Your task to perform on an android device: Go to calendar. Show me events next week Image 0: 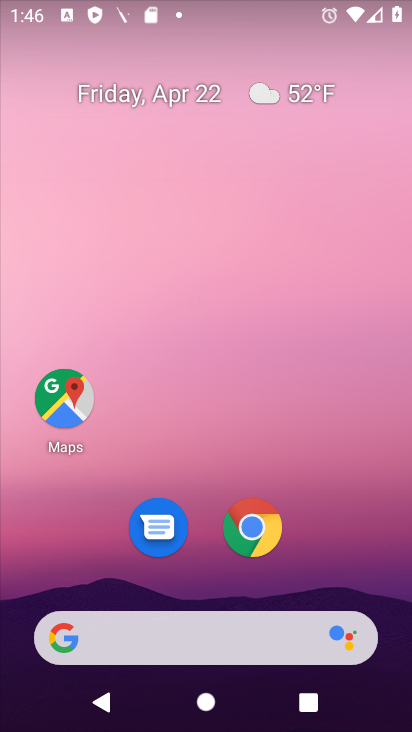
Step 0: drag from (350, 501) to (351, 174)
Your task to perform on an android device: Go to calendar. Show me events next week Image 1: 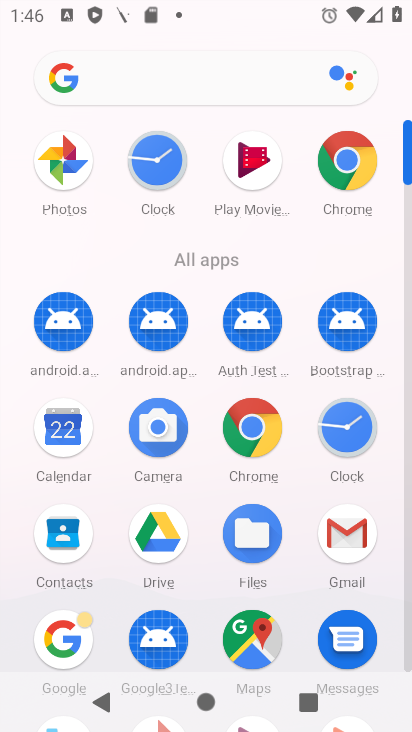
Step 1: click (50, 417)
Your task to perform on an android device: Go to calendar. Show me events next week Image 2: 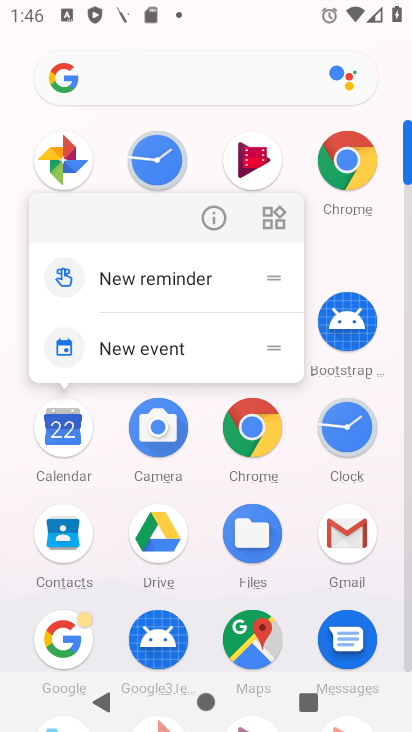
Step 2: click (60, 429)
Your task to perform on an android device: Go to calendar. Show me events next week Image 3: 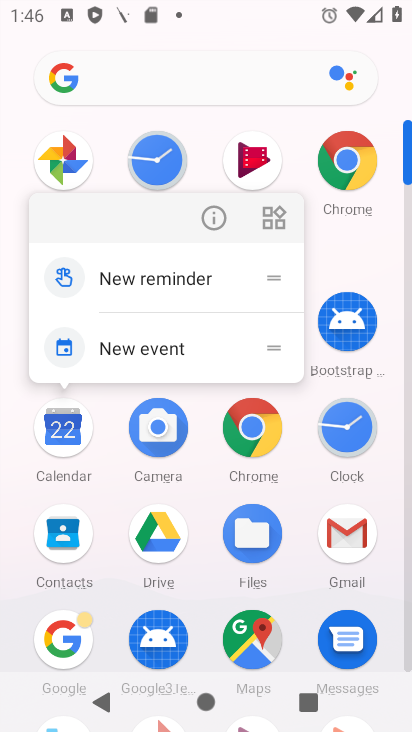
Step 3: click (58, 429)
Your task to perform on an android device: Go to calendar. Show me events next week Image 4: 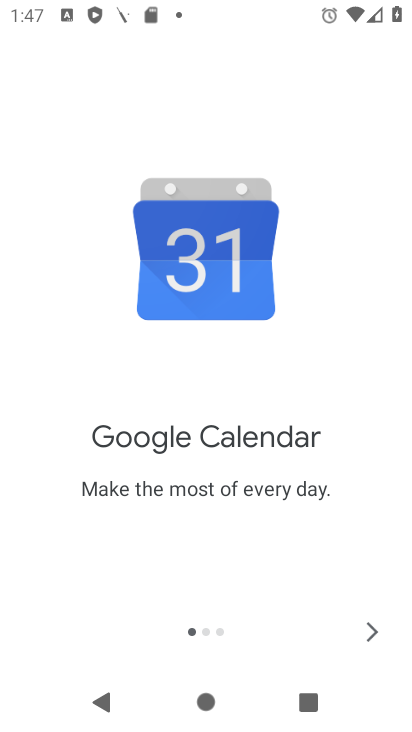
Step 4: click (378, 637)
Your task to perform on an android device: Go to calendar. Show me events next week Image 5: 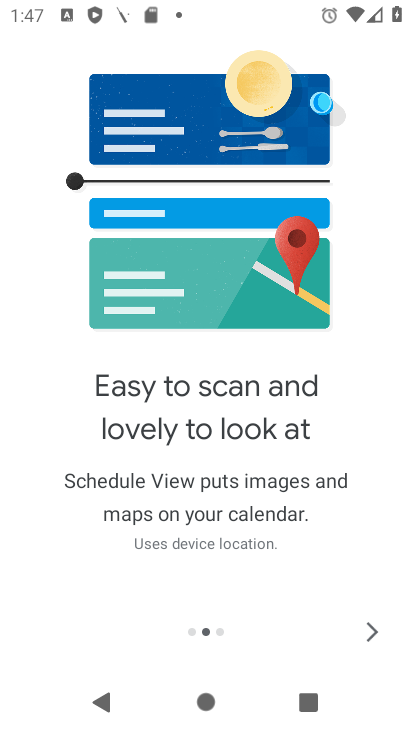
Step 5: click (366, 633)
Your task to perform on an android device: Go to calendar. Show me events next week Image 6: 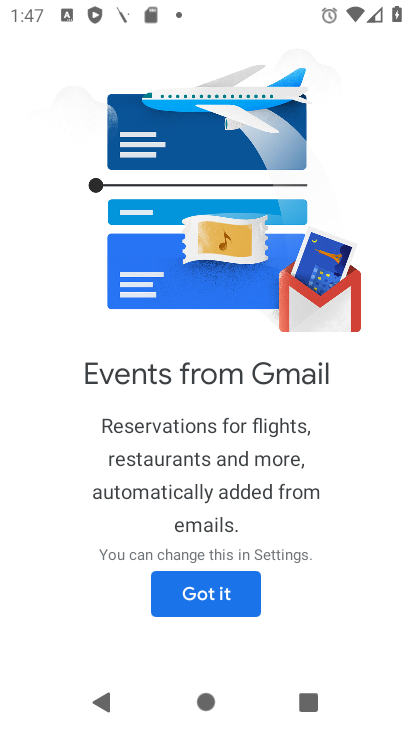
Step 6: click (209, 590)
Your task to perform on an android device: Go to calendar. Show me events next week Image 7: 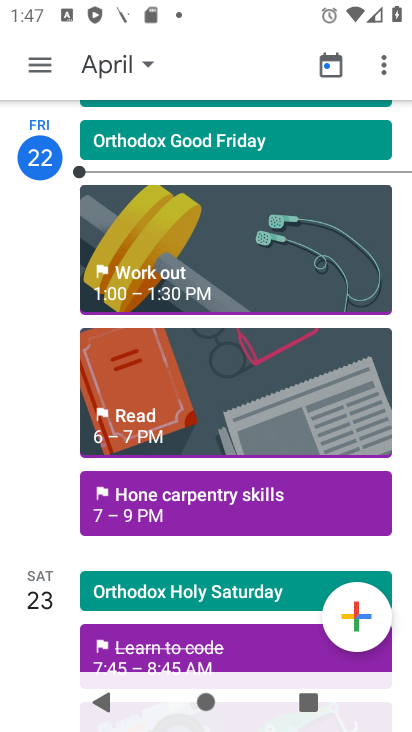
Step 7: click (123, 61)
Your task to perform on an android device: Go to calendar. Show me events next week Image 8: 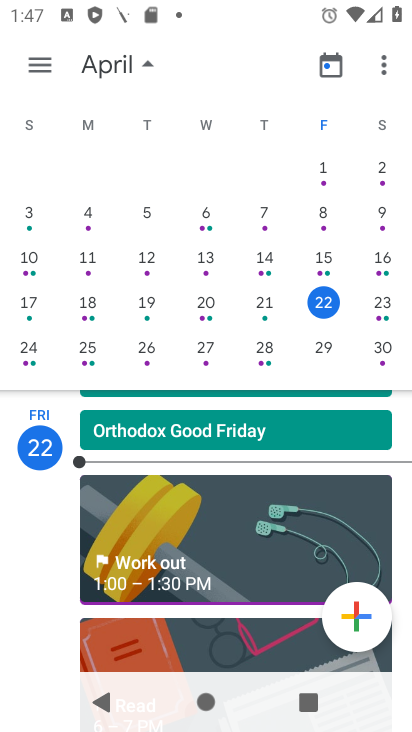
Step 8: click (261, 352)
Your task to perform on an android device: Go to calendar. Show me events next week Image 9: 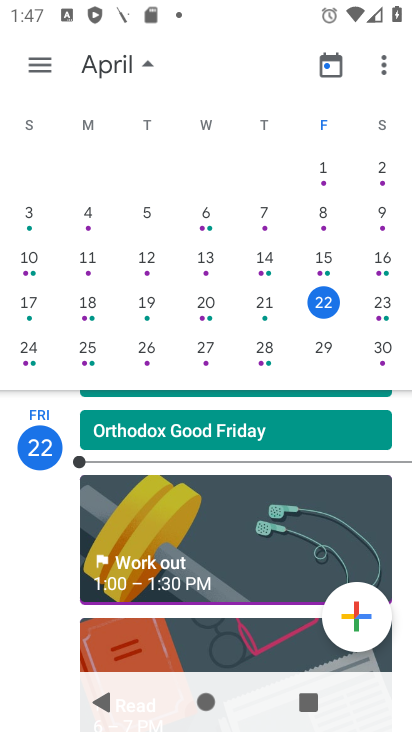
Step 9: click (261, 350)
Your task to perform on an android device: Go to calendar. Show me events next week Image 10: 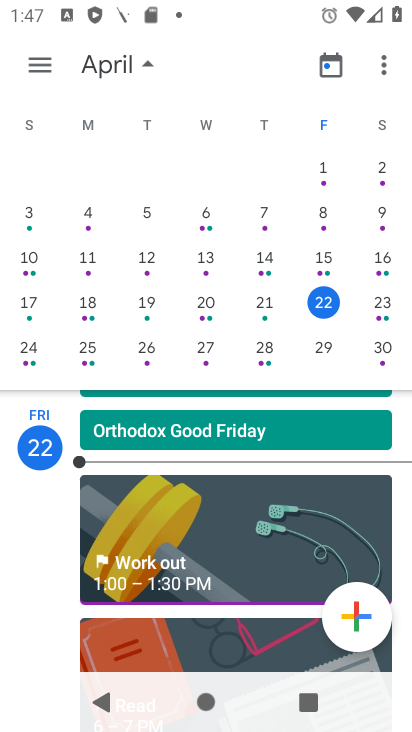
Step 10: click (261, 348)
Your task to perform on an android device: Go to calendar. Show me events next week Image 11: 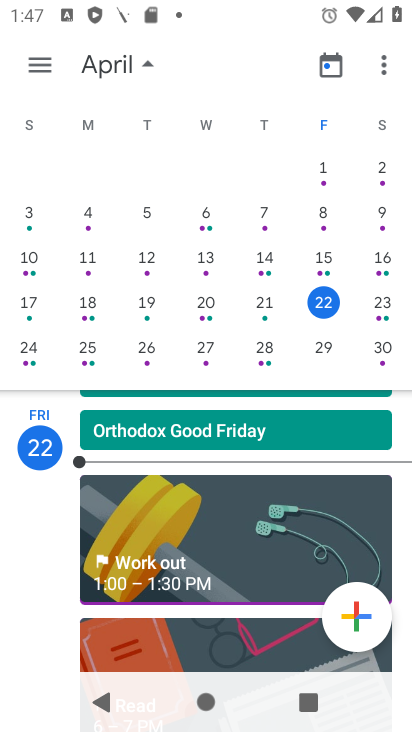
Step 11: click (261, 347)
Your task to perform on an android device: Go to calendar. Show me events next week Image 12: 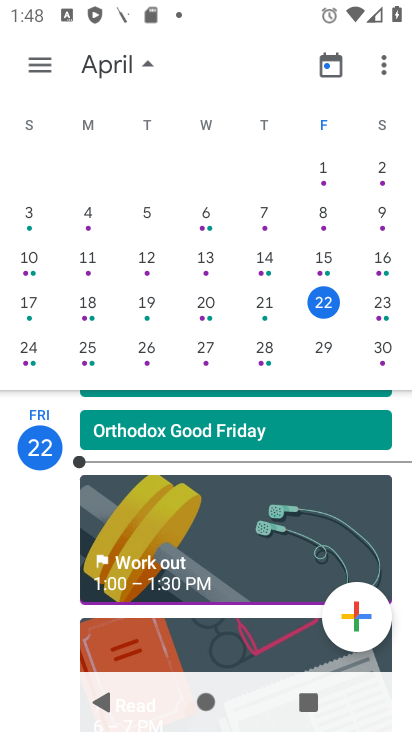
Step 12: click (261, 347)
Your task to perform on an android device: Go to calendar. Show me events next week Image 13: 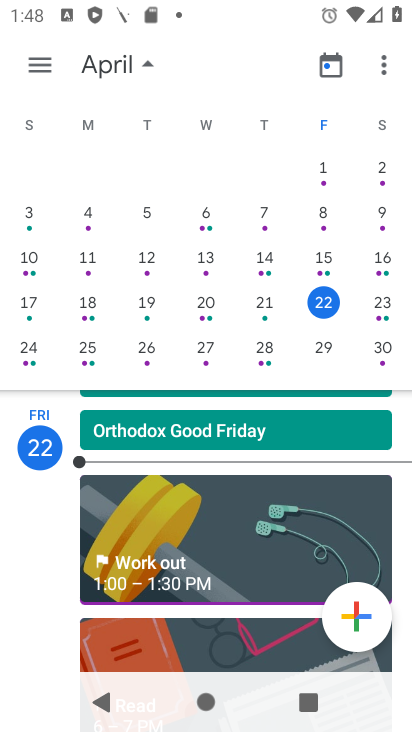
Step 13: click (253, 354)
Your task to perform on an android device: Go to calendar. Show me events next week Image 14: 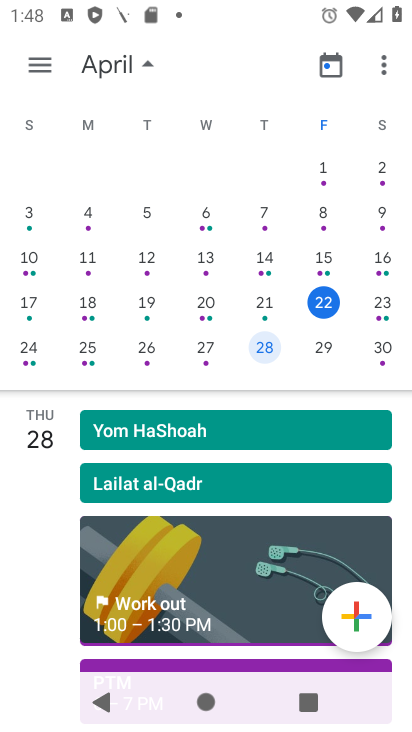
Step 14: click (253, 352)
Your task to perform on an android device: Go to calendar. Show me events next week Image 15: 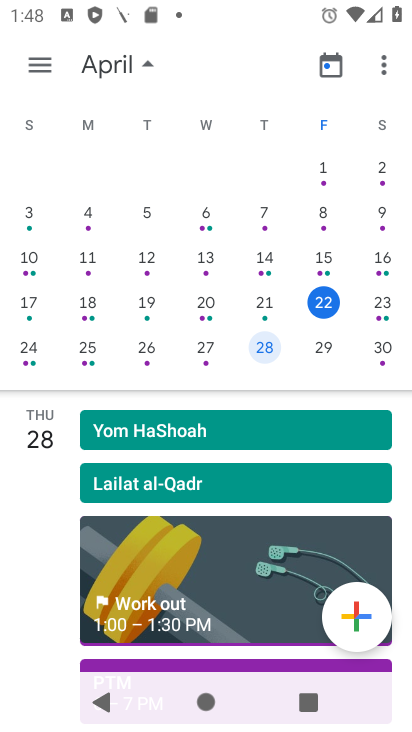
Step 15: click (253, 352)
Your task to perform on an android device: Go to calendar. Show me events next week Image 16: 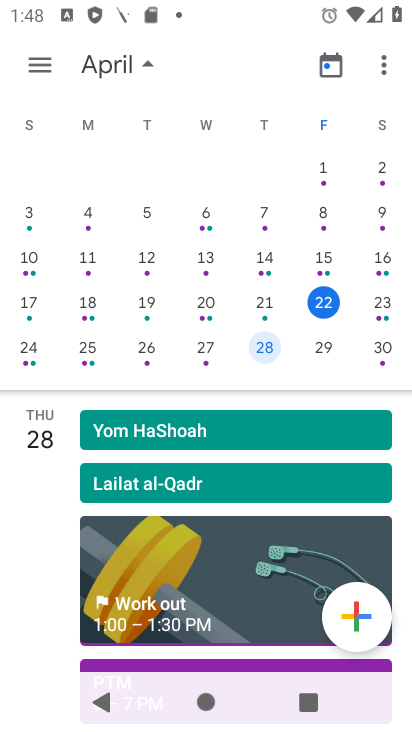
Step 16: click (265, 347)
Your task to perform on an android device: Go to calendar. Show me events next week Image 17: 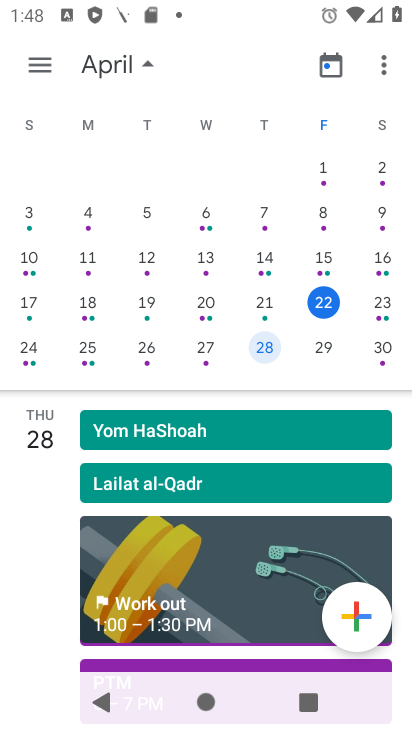
Step 17: click (265, 347)
Your task to perform on an android device: Go to calendar. Show me events next week Image 18: 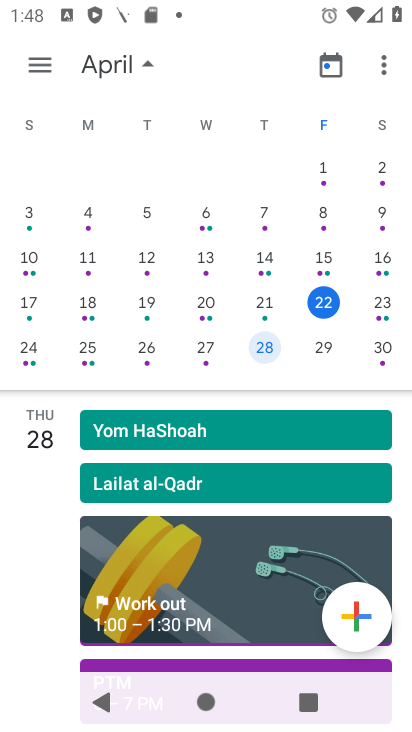
Step 18: click (265, 347)
Your task to perform on an android device: Go to calendar. Show me events next week Image 19: 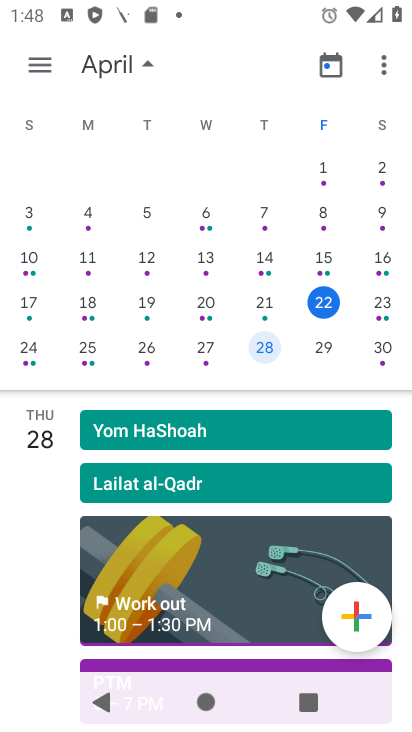
Step 19: click (265, 347)
Your task to perform on an android device: Go to calendar. Show me events next week Image 20: 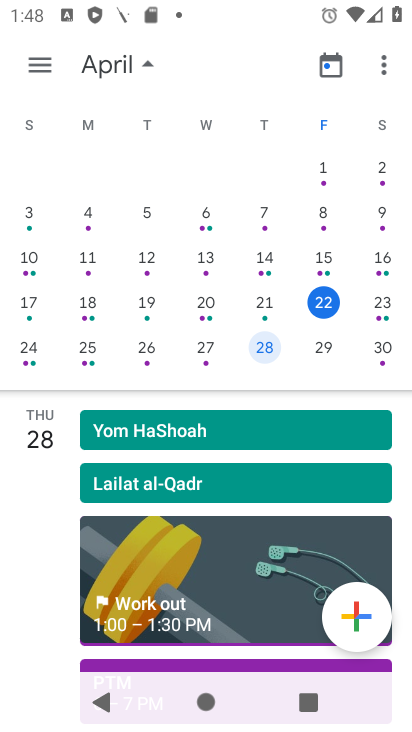
Step 20: click (265, 347)
Your task to perform on an android device: Go to calendar. Show me events next week Image 21: 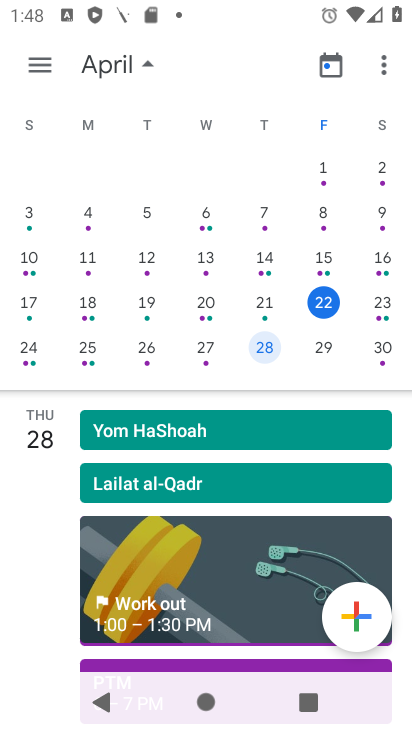
Step 21: click (265, 347)
Your task to perform on an android device: Go to calendar. Show me events next week Image 22: 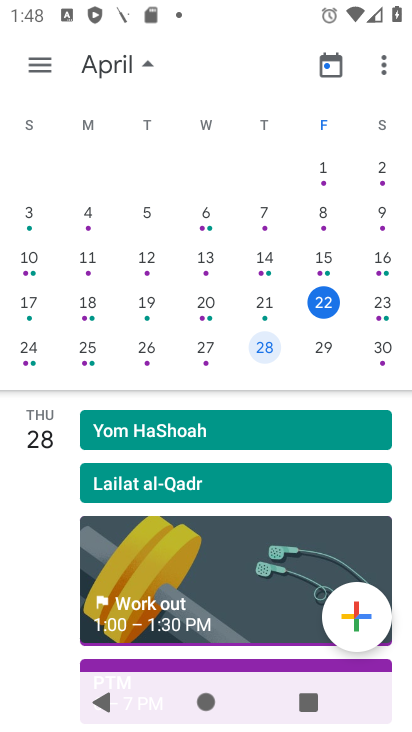
Step 22: click (265, 347)
Your task to perform on an android device: Go to calendar. Show me events next week Image 23: 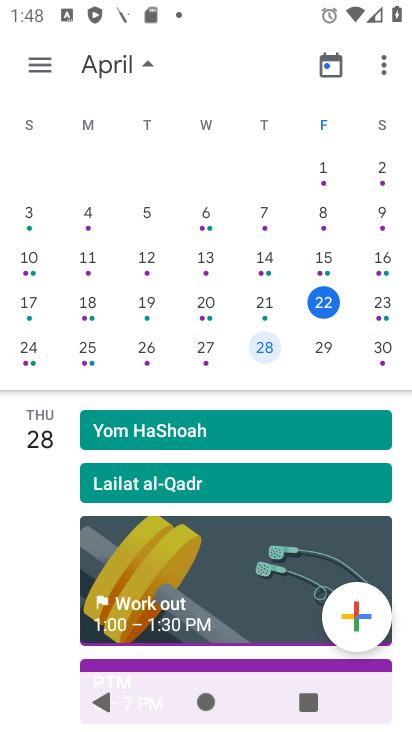
Step 23: click (269, 334)
Your task to perform on an android device: Go to calendar. Show me events next week Image 24: 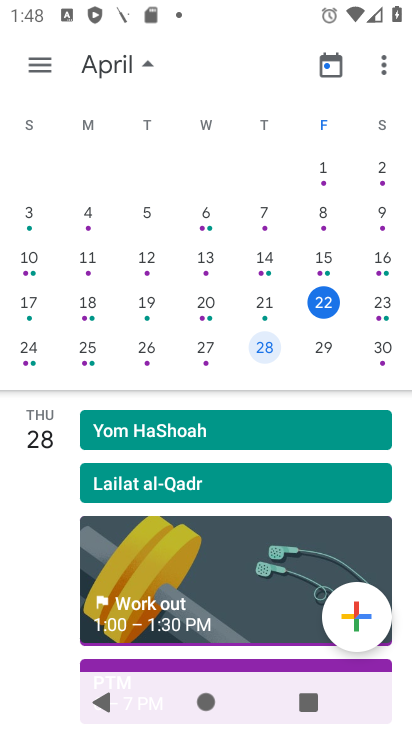
Step 24: task complete